Your task to perform on an android device: Open the stopwatch Image 0: 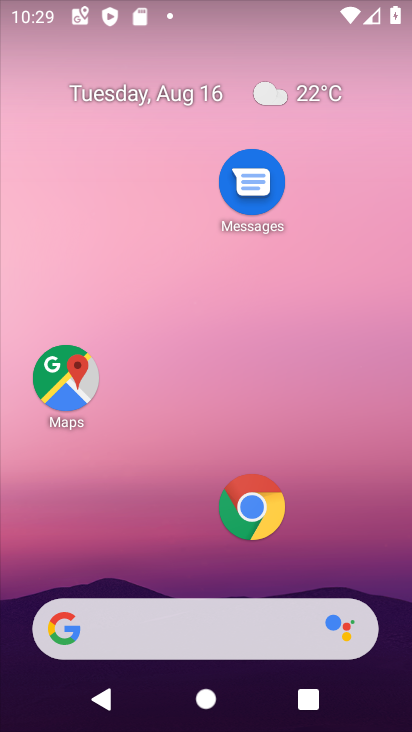
Step 0: drag from (201, 477) to (298, 40)
Your task to perform on an android device: Open the stopwatch Image 1: 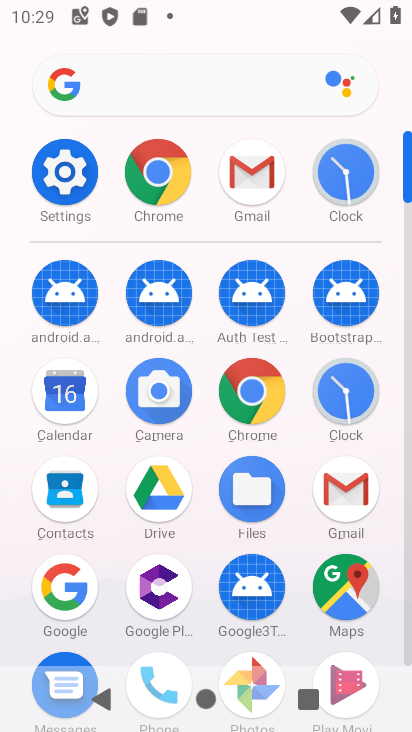
Step 1: click (349, 171)
Your task to perform on an android device: Open the stopwatch Image 2: 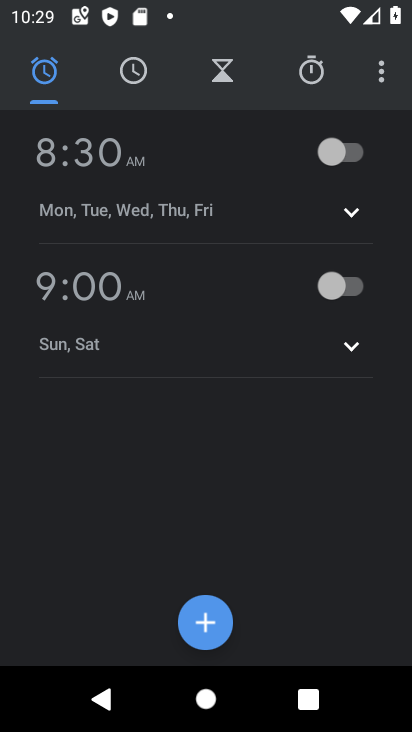
Step 2: click (330, 79)
Your task to perform on an android device: Open the stopwatch Image 3: 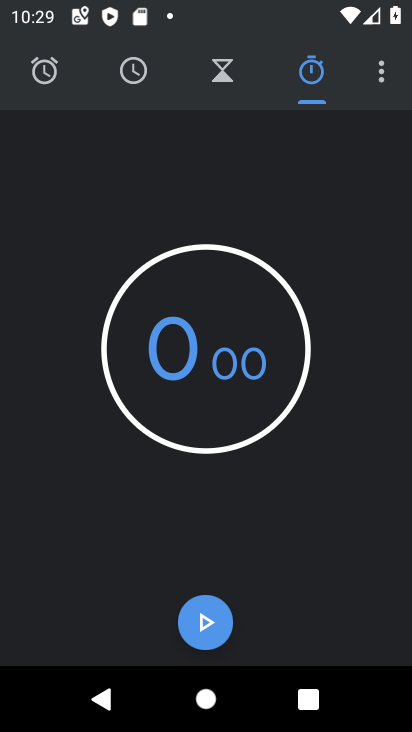
Step 3: task complete